Your task to perform on an android device: Open privacy settings Image 0: 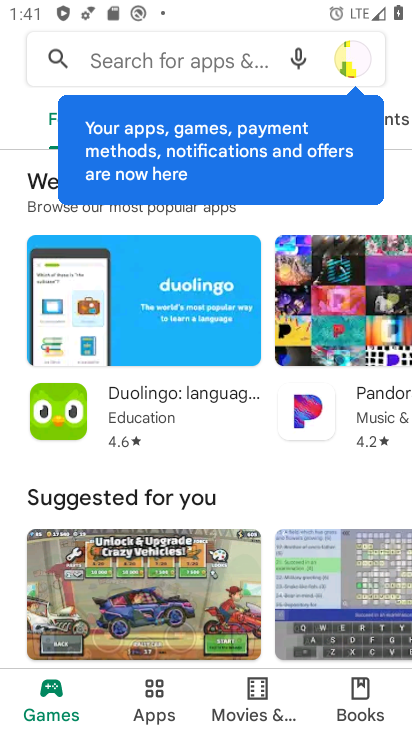
Step 0: press home button
Your task to perform on an android device: Open privacy settings Image 1: 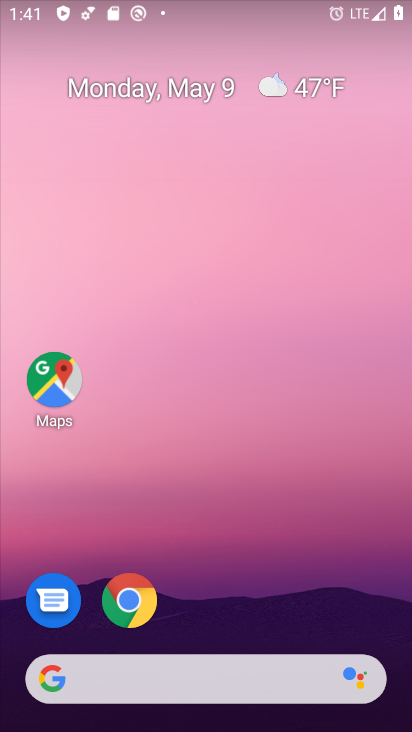
Step 1: drag from (198, 654) to (216, 76)
Your task to perform on an android device: Open privacy settings Image 2: 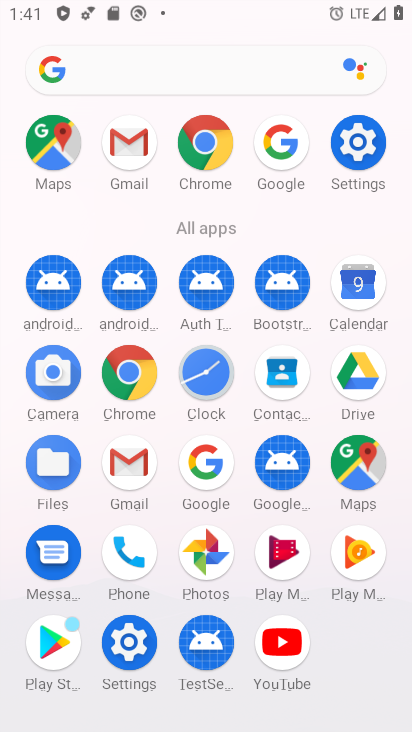
Step 2: click (341, 130)
Your task to perform on an android device: Open privacy settings Image 3: 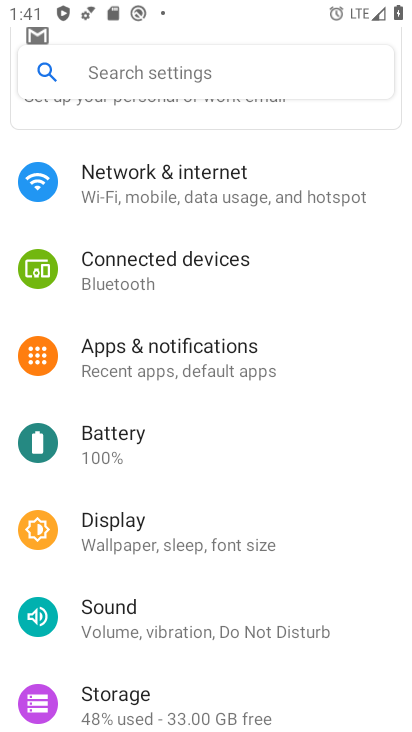
Step 3: drag from (177, 511) to (197, 154)
Your task to perform on an android device: Open privacy settings Image 4: 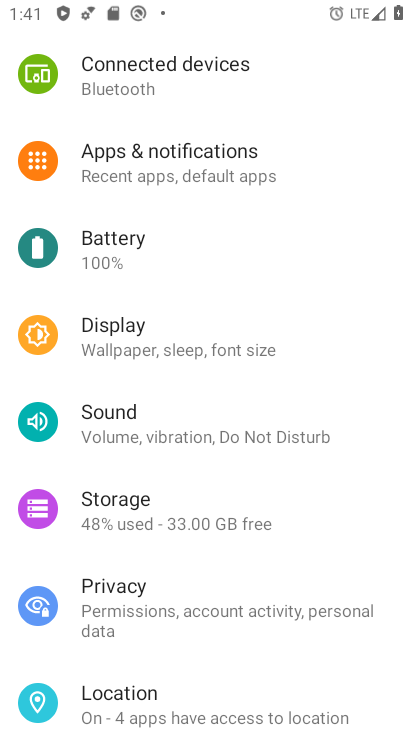
Step 4: click (146, 609)
Your task to perform on an android device: Open privacy settings Image 5: 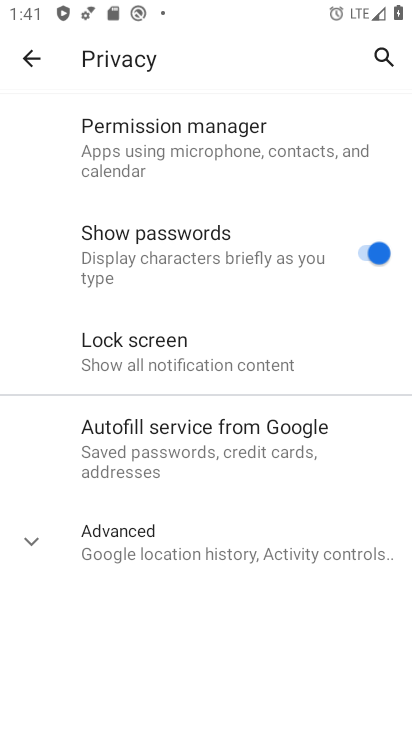
Step 5: task complete